Your task to perform on an android device: Open Google Image 0: 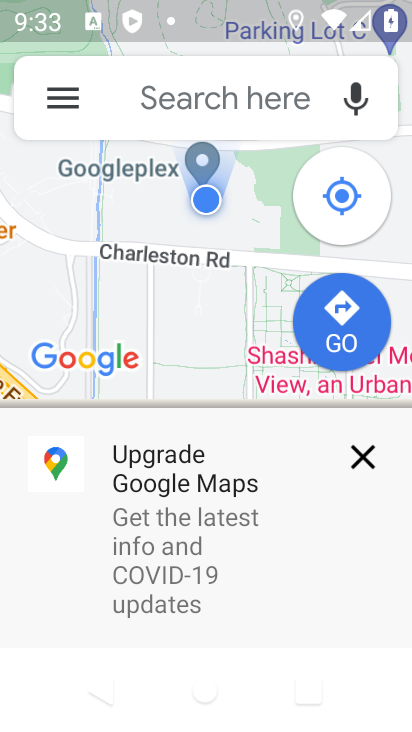
Step 0: task complete